Your task to perform on an android device: Open Google Image 0: 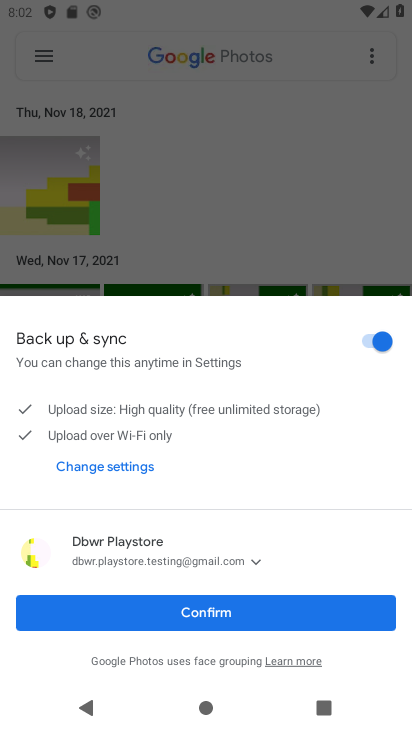
Step 0: press home button
Your task to perform on an android device: Open Google Image 1: 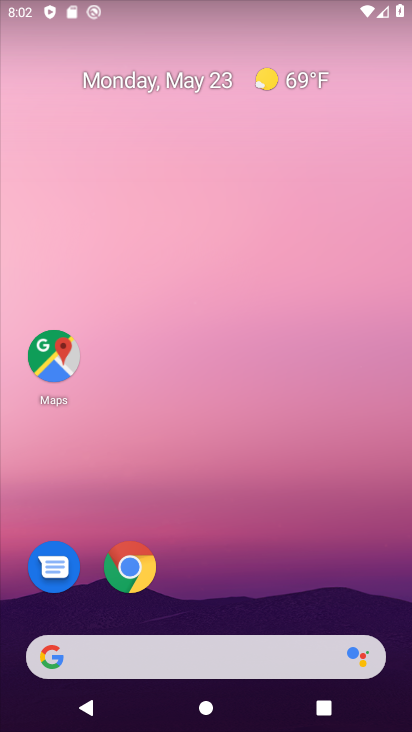
Step 1: click (181, 648)
Your task to perform on an android device: Open Google Image 2: 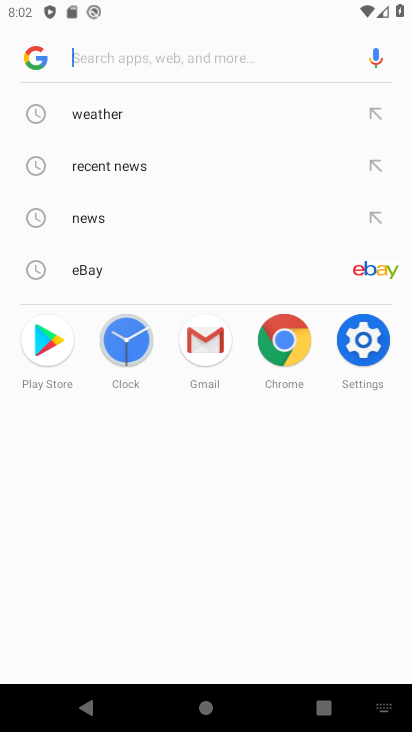
Step 2: click (39, 50)
Your task to perform on an android device: Open Google Image 3: 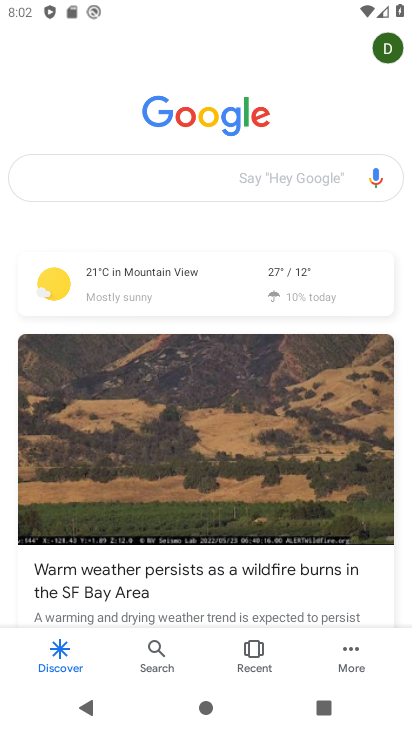
Step 3: task complete